Your task to perform on an android device: all mails in gmail Image 0: 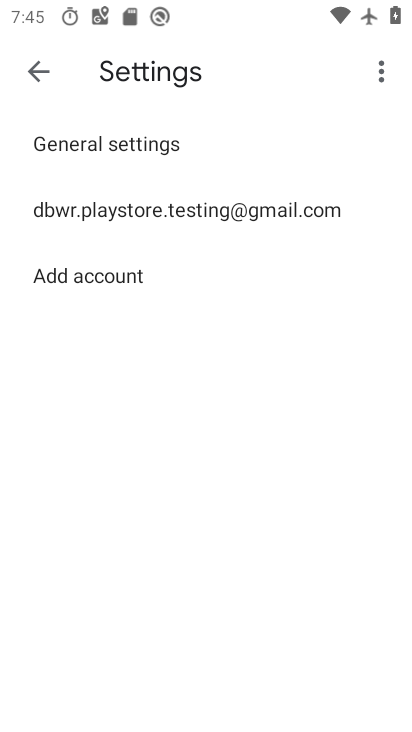
Step 0: press home button
Your task to perform on an android device: all mails in gmail Image 1: 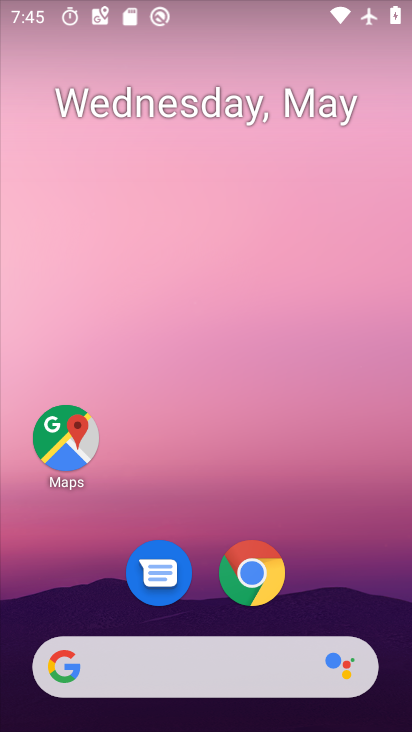
Step 1: drag from (337, 584) to (304, 0)
Your task to perform on an android device: all mails in gmail Image 2: 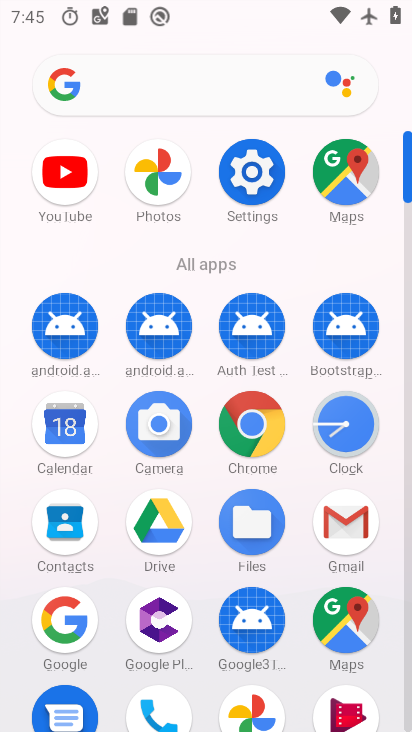
Step 2: click (345, 524)
Your task to perform on an android device: all mails in gmail Image 3: 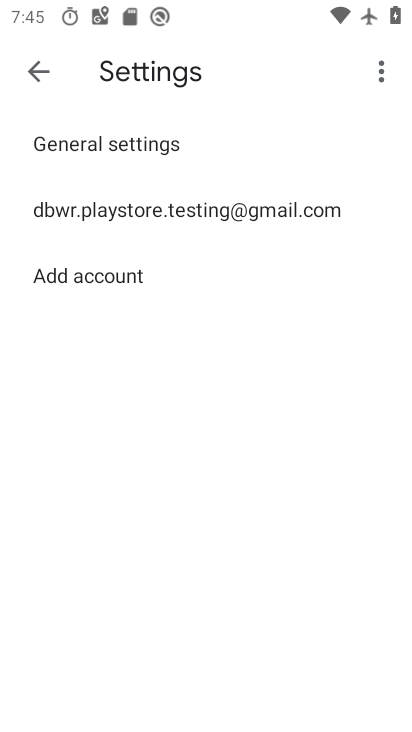
Step 3: click (33, 81)
Your task to perform on an android device: all mails in gmail Image 4: 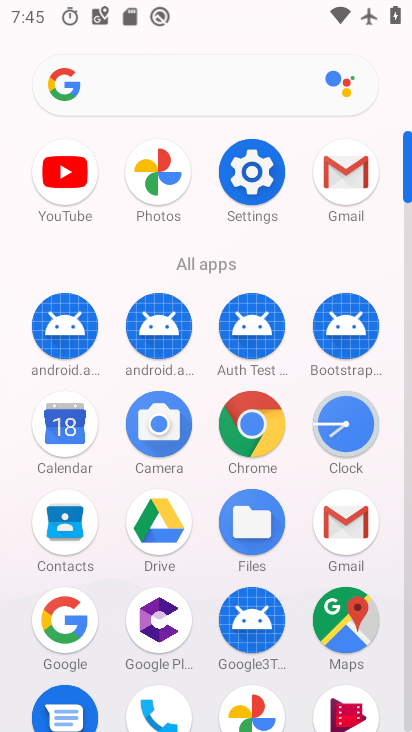
Step 4: click (341, 176)
Your task to perform on an android device: all mails in gmail Image 5: 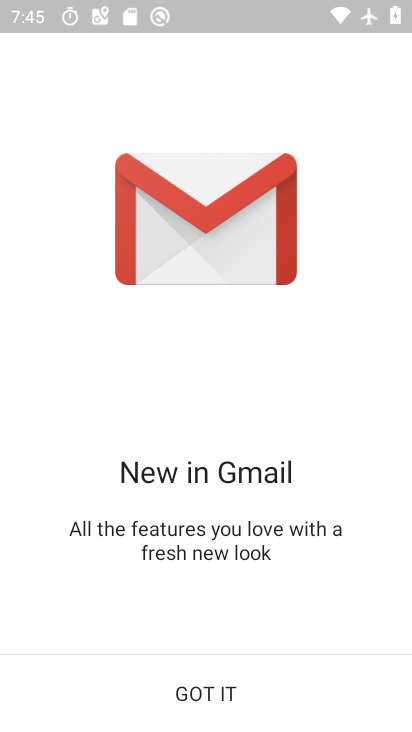
Step 5: click (227, 679)
Your task to perform on an android device: all mails in gmail Image 6: 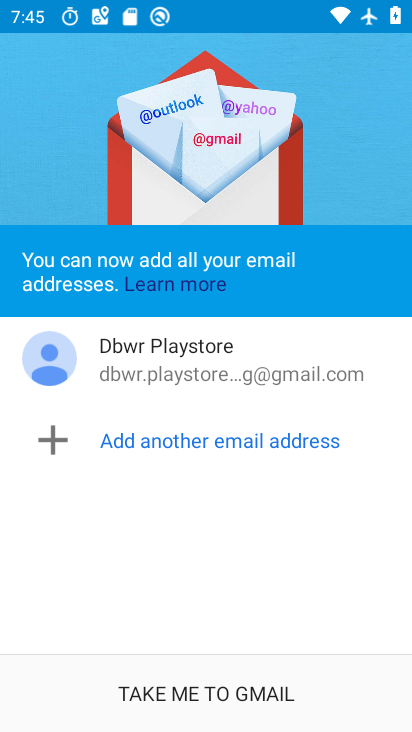
Step 6: click (227, 679)
Your task to perform on an android device: all mails in gmail Image 7: 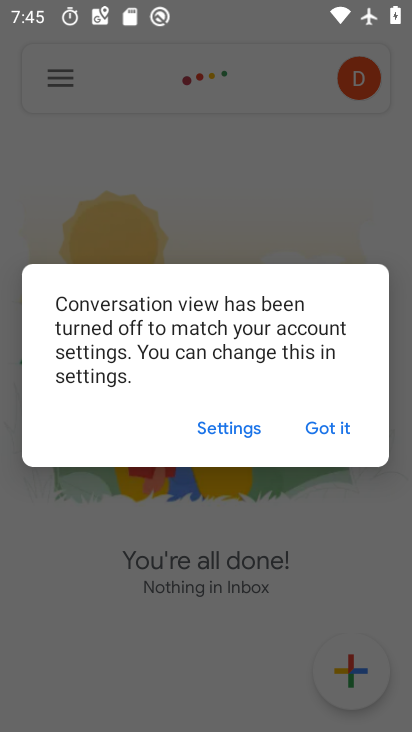
Step 7: click (311, 428)
Your task to perform on an android device: all mails in gmail Image 8: 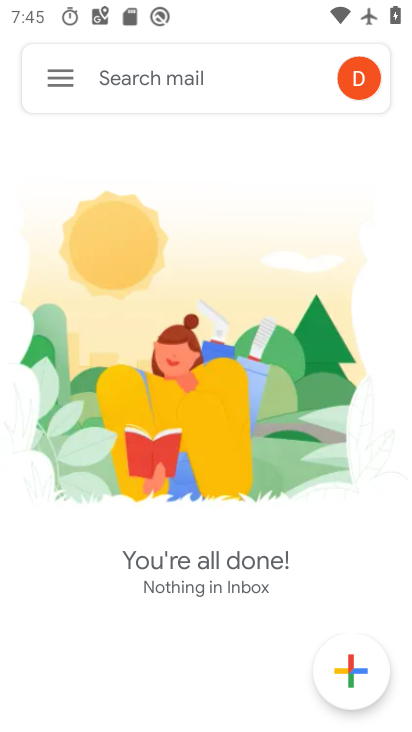
Step 8: click (57, 75)
Your task to perform on an android device: all mails in gmail Image 9: 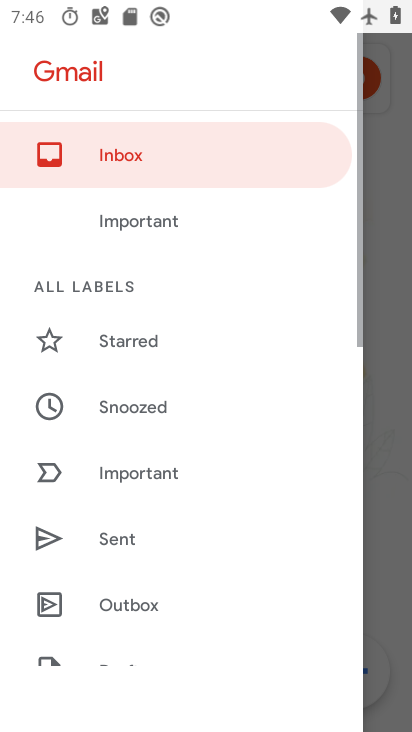
Step 9: drag from (179, 593) to (171, 280)
Your task to perform on an android device: all mails in gmail Image 10: 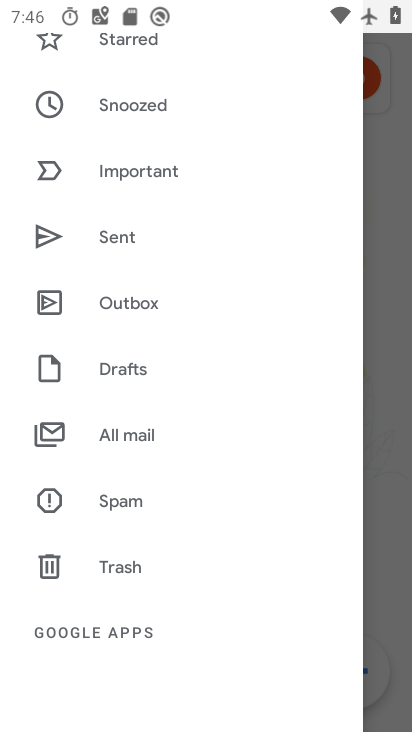
Step 10: click (136, 440)
Your task to perform on an android device: all mails in gmail Image 11: 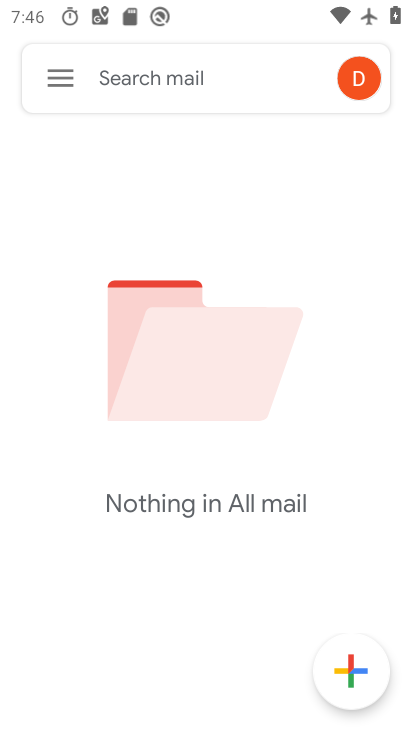
Step 11: task complete